Your task to perform on an android device: Go to eBay Image 0: 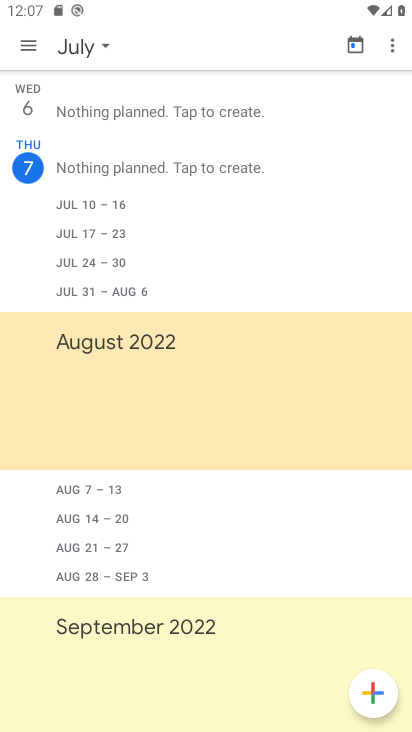
Step 0: press home button
Your task to perform on an android device: Go to eBay Image 1: 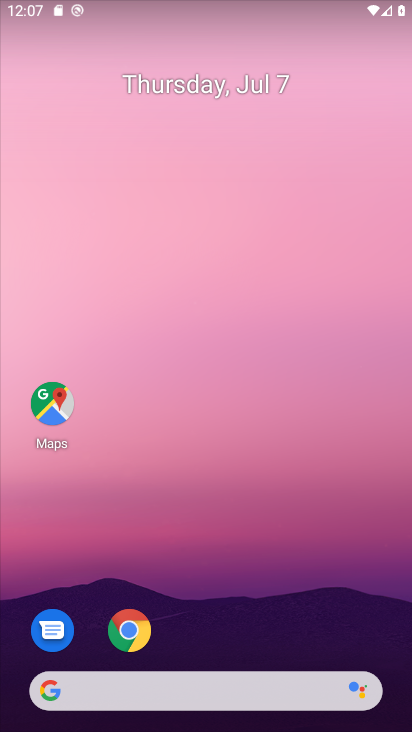
Step 1: drag from (231, 655) to (225, 337)
Your task to perform on an android device: Go to eBay Image 2: 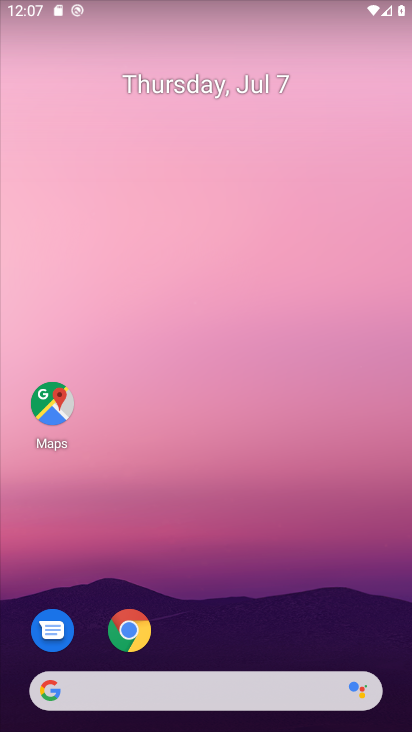
Step 2: drag from (263, 580) to (238, 137)
Your task to perform on an android device: Go to eBay Image 3: 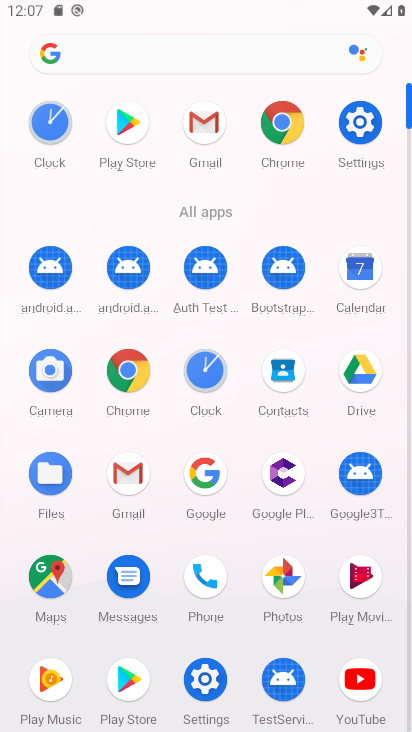
Step 3: click (288, 110)
Your task to perform on an android device: Go to eBay Image 4: 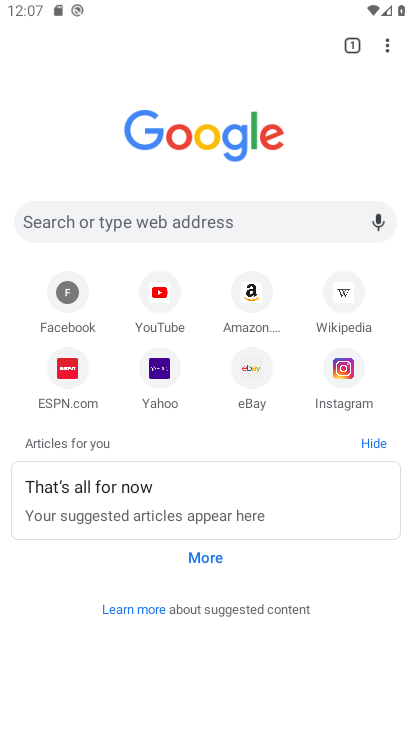
Step 4: click (248, 363)
Your task to perform on an android device: Go to eBay Image 5: 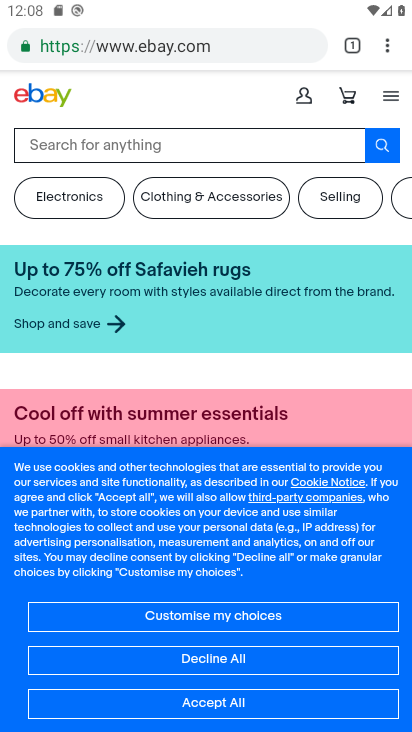
Step 5: task complete